Your task to perform on an android device: toggle notifications settings in the gmail app Image 0: 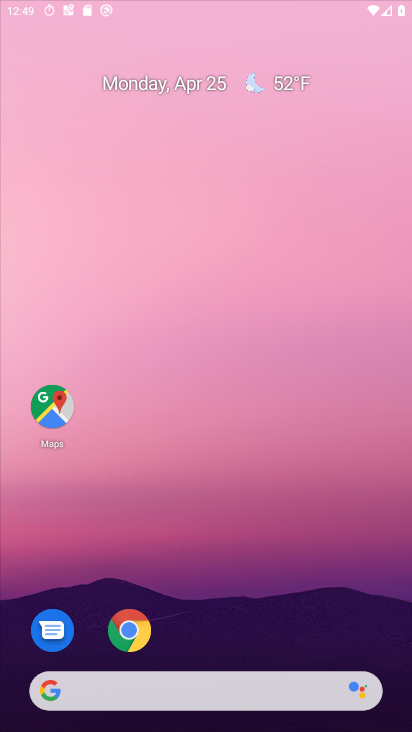
Step 0: click (168, 172)
Your task to perform on an android device: toggle notifications settings in the gmail app Image 1: 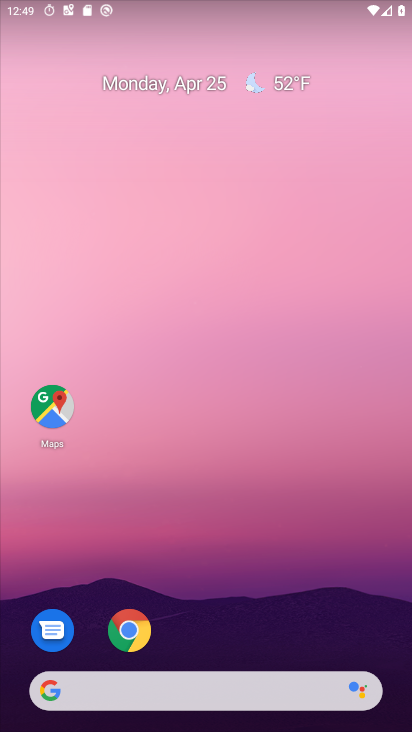
Step 1: drag from (173, 628) to (60, 100)
Your task to perform on an android device: toggle notifications settings in the gmail app Image 2: 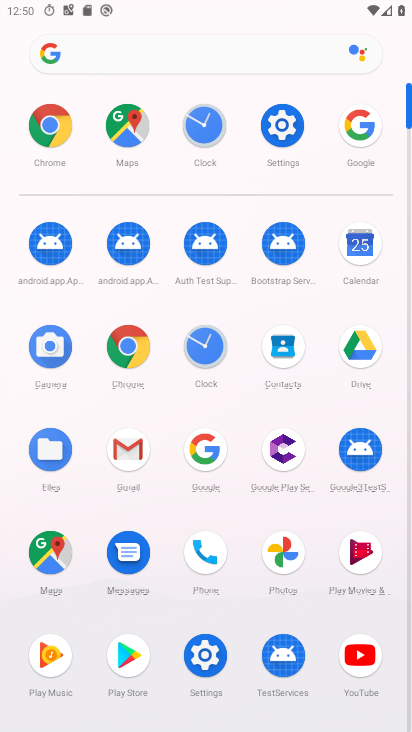
Step 2: click (123, 456)
Your task to perform on an android device: toggle notifications settings in the gmail app Image 3: 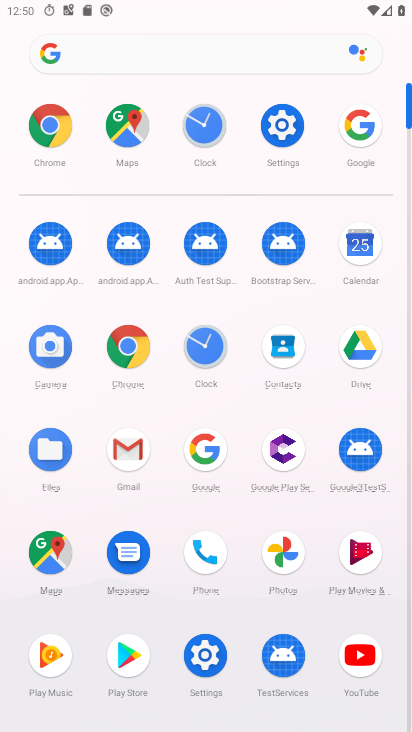
Step 3: click (123, 455)
Your task to perform on an android device: toggle notifications settings in the gmail app Image 4: 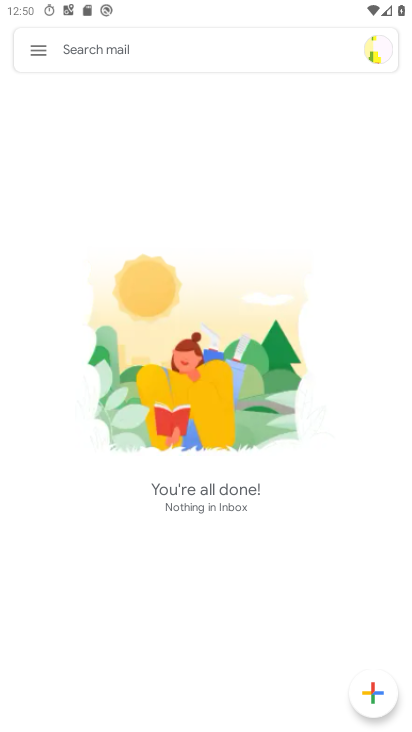
Step 4: click (42, 46)
Your task to perform on an android device: toggle notifications settings in the gmail app Image 5: 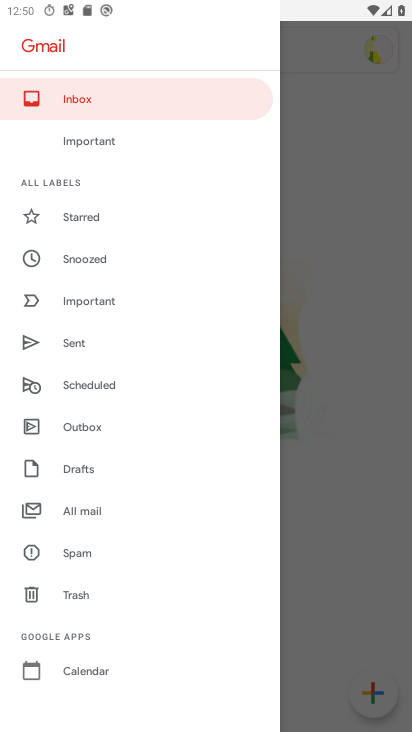
Step 5: drag from (119, 606) to (116, 213)
Your task to perform on an android device: toggle notifications settings in the gmail app Image 6: 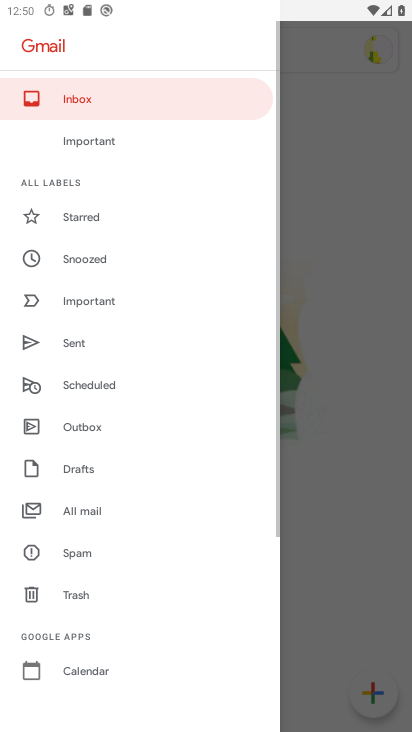
Step 6: drag from (109, 492) to (115, 148)
Your task to perform on an android device: toggle notifications settings in the gmail app Image 7: 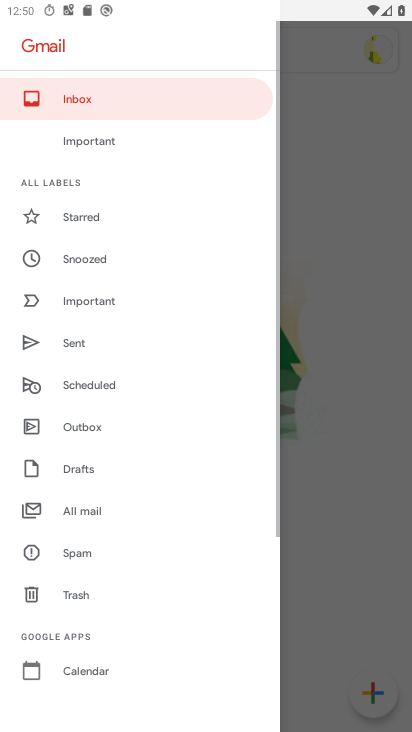
Step 7: drag from (116, 544) to (156, 193)
Your task to perform on an android device: toggle notifications settings in the gmail app Image 8: 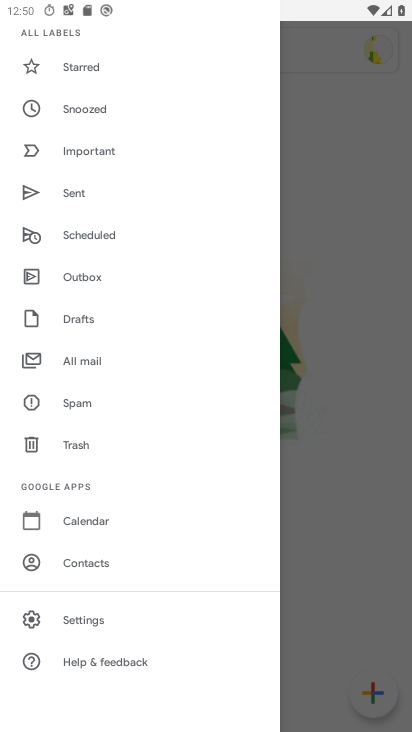
Step 8: click (93, 605)
Your task to perform on an android device: toggle notifications settings in the gmail app Image 9: 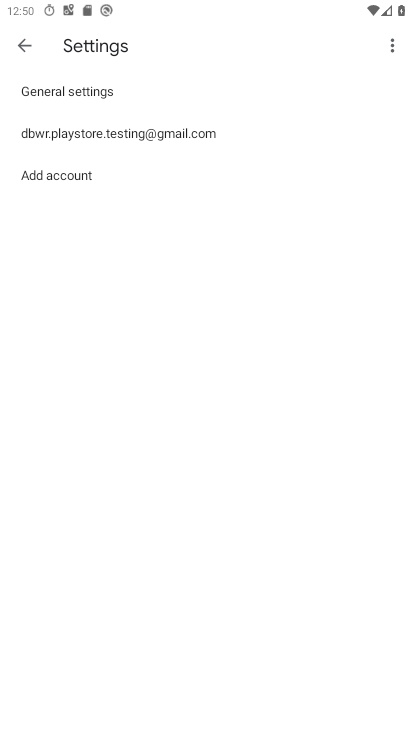
Step 9: click (172, 115)
Your task to perform on an android device: toggle notifications settings in the gmail app Image 10: 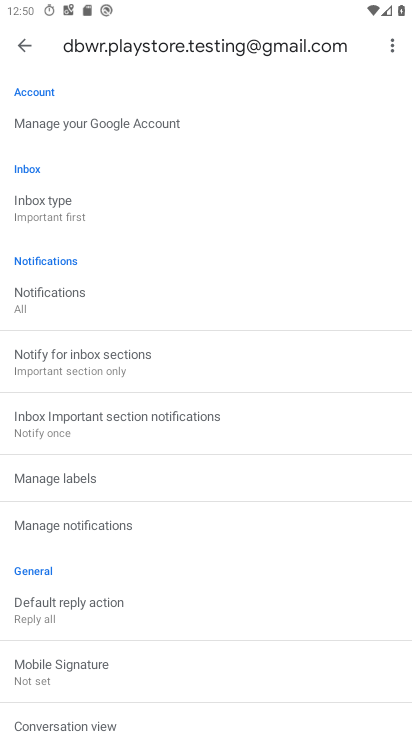
Step 10: drag from (121, 533) to (10, 169)
Your task to perform on an android device: toggle notifications settings in the gmail app Image 11: 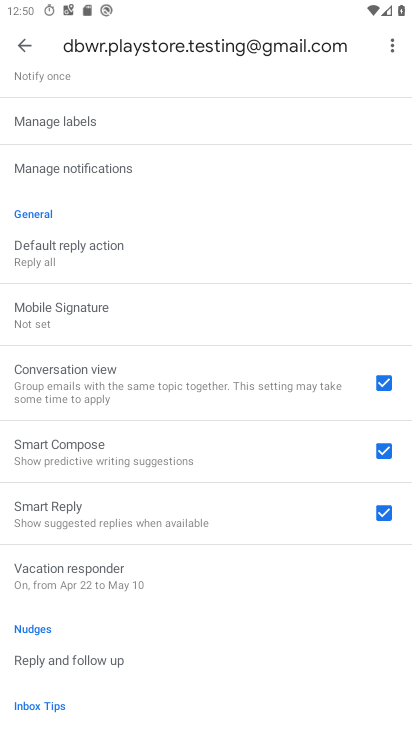
Step 11: click (125, 183)
Your task to perform on an android device: toggle notifications settings in the gmail app Image 12: 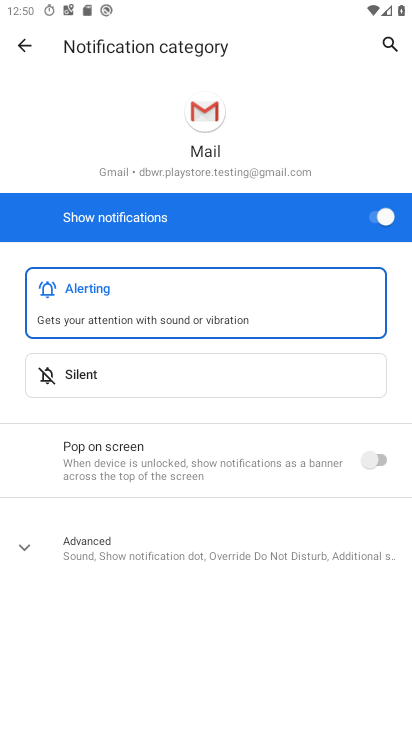
Step 12: click (358, 227)
Your task to perform on an android device: toggle notifications settings in the gmail app Image 13: 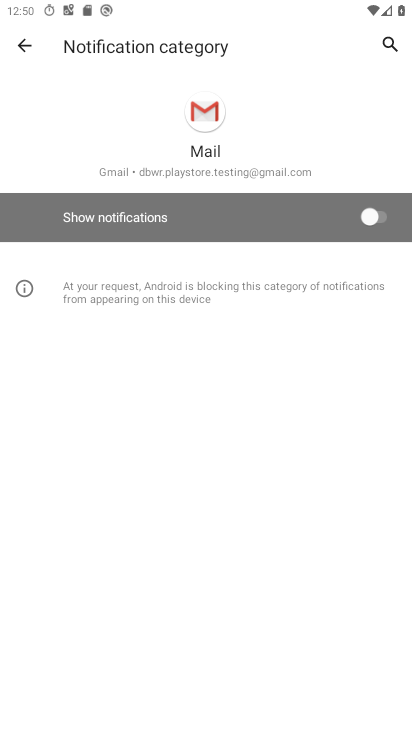
Step 13: task complete